Your task to perform on an android device: change the clock display to analog Image 0: 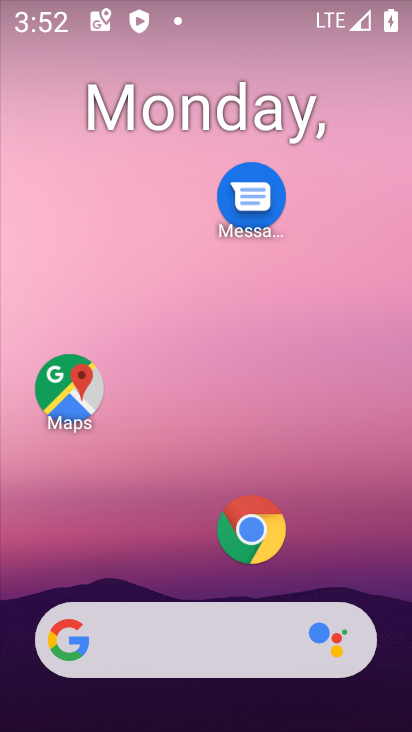
Step 0: drag from (186, 480) to (213, 177)
Your task to perform on an android device: change the clock display to analog Image 1: 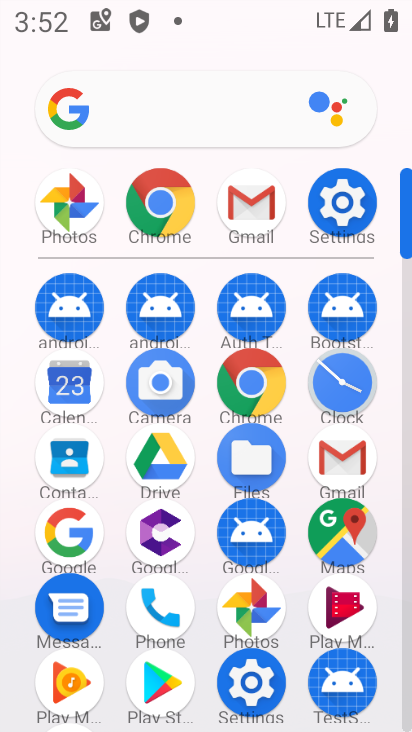
Step 1: click (354, 385)
Your task to perform on an android device: change the clock display to analog Image 2: 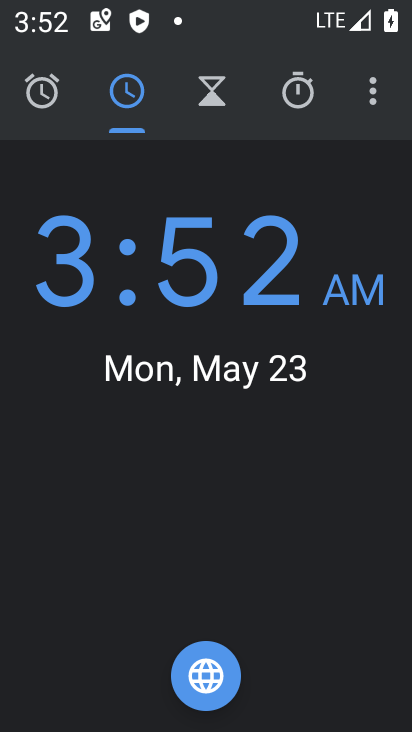
Step 2: click (378, 88)
Your task to perform on an android device: change the clock display to analog Image 3: 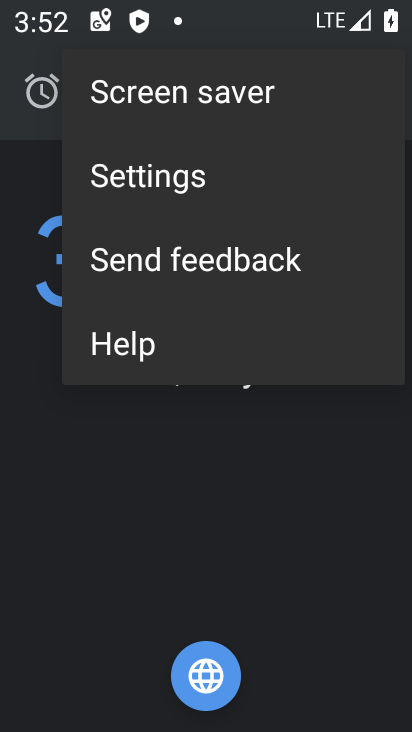
Step 3: click (148, 187)
Your task to perform on an android device: change the clock display to analog Image 4: 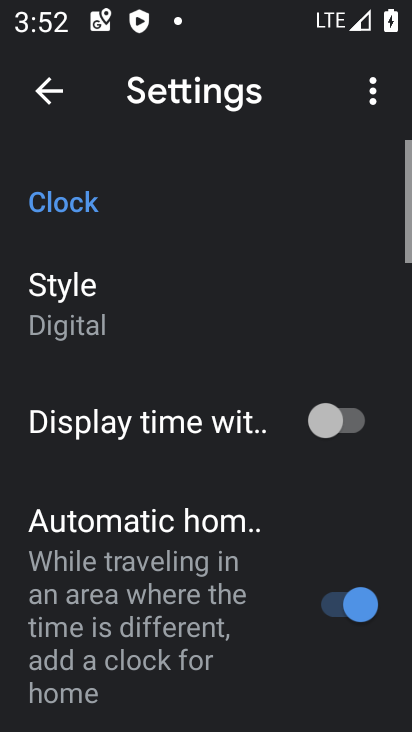
Step 4: click (92, 299)
Your task to perform on an android device: change the clock display to analog Image 5: 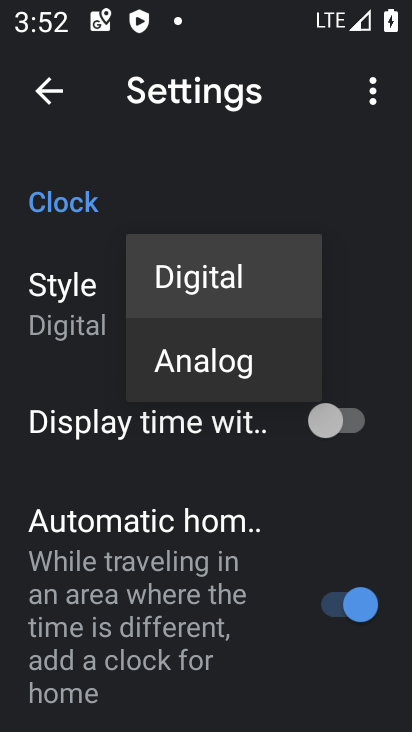
Step 5: click (199, 368)
Your task to perform on an android device: change the clock display to analog Image 6: 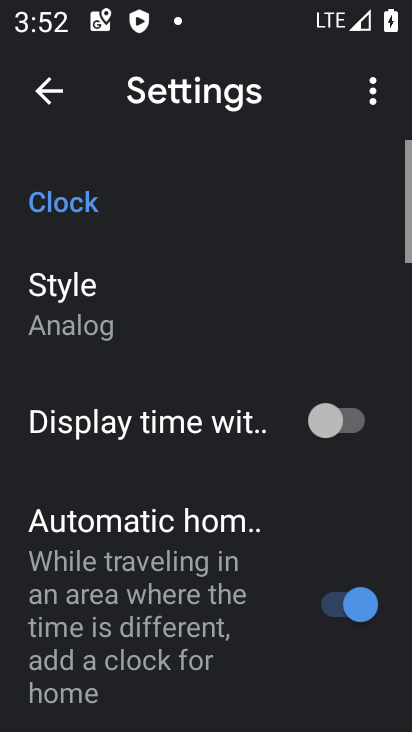
Step 6: task complete